Your task to perform on an android device: Go to Google maps Image 0: 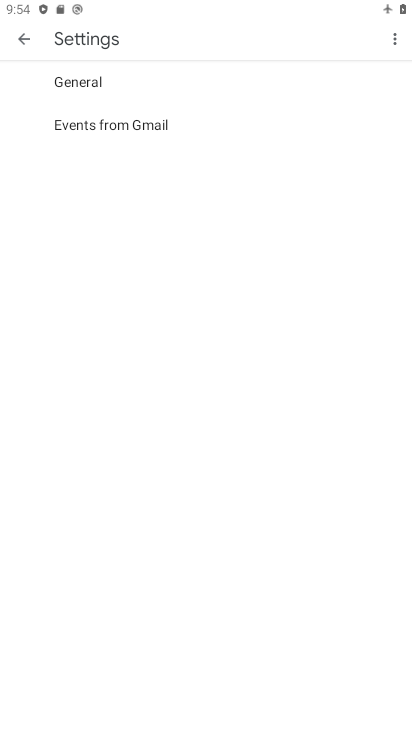
Step 0: press home button
Your task to perform on an android device: Go to Google maps Image 1: 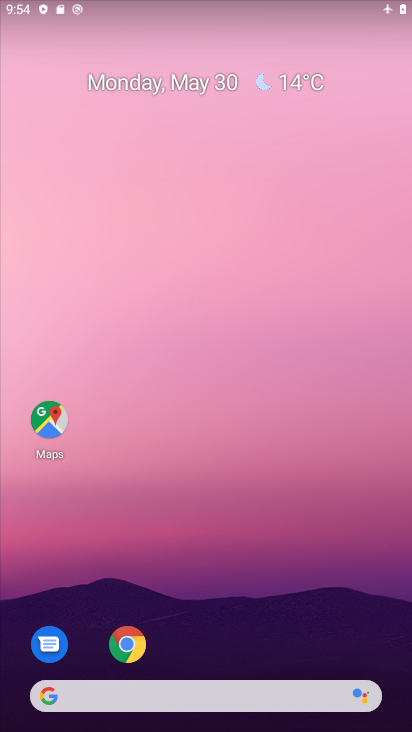
Step 1: click (47, 424)
Your task to perform on an android device: Go to Google maps Image 2: 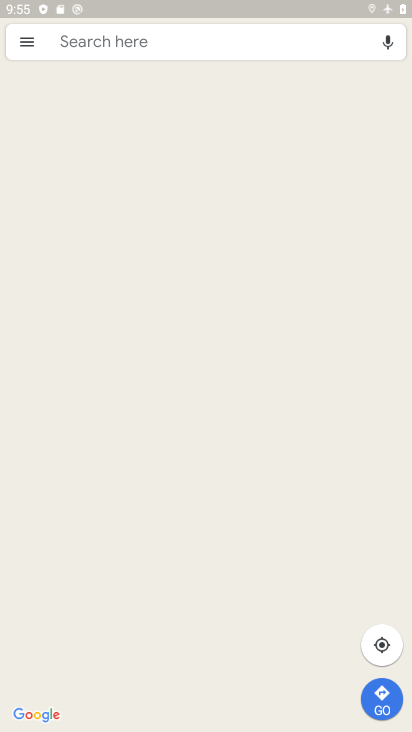
Step 2: task complete